Your task to perform on an android device: delete location history Image 0: 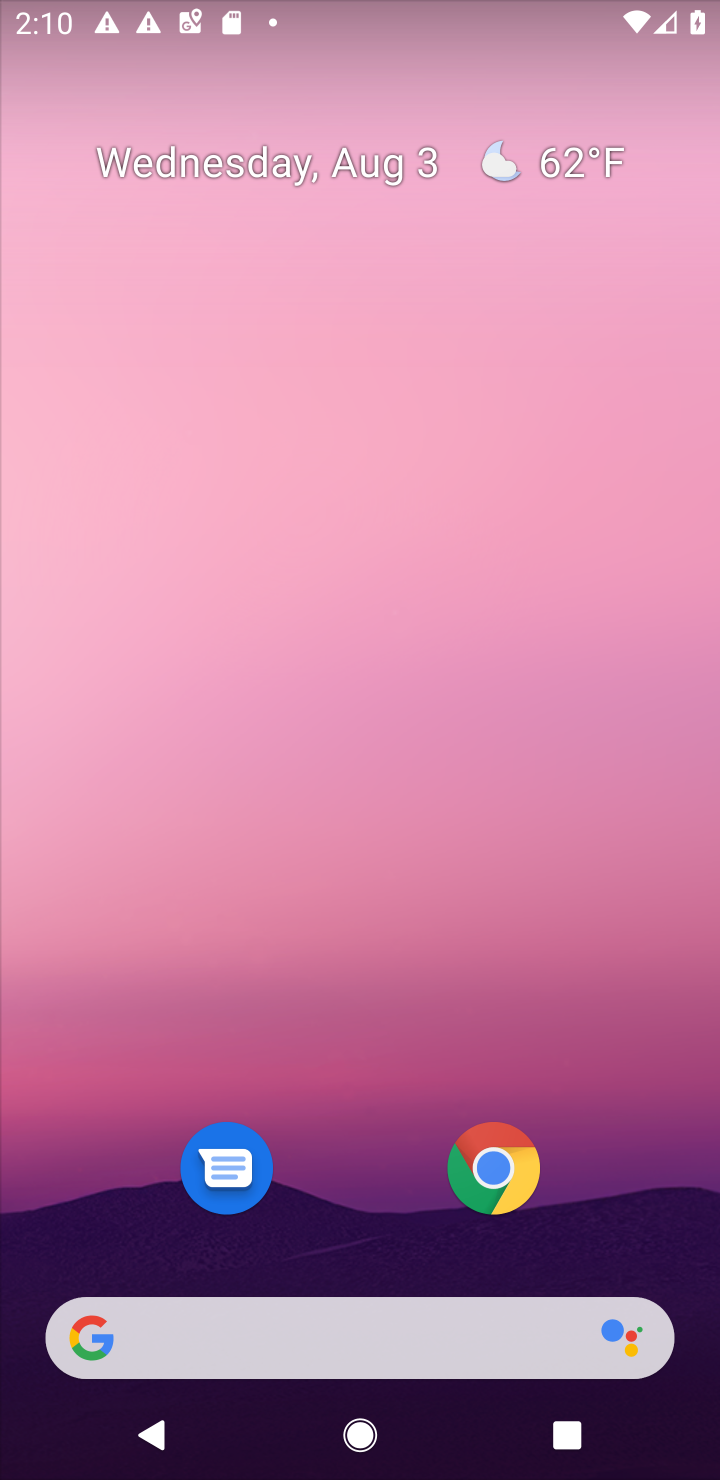
Step 0: drag from (636, 1059) to (601, 320)
Your task to perform on an android device: delete location history Image 1: 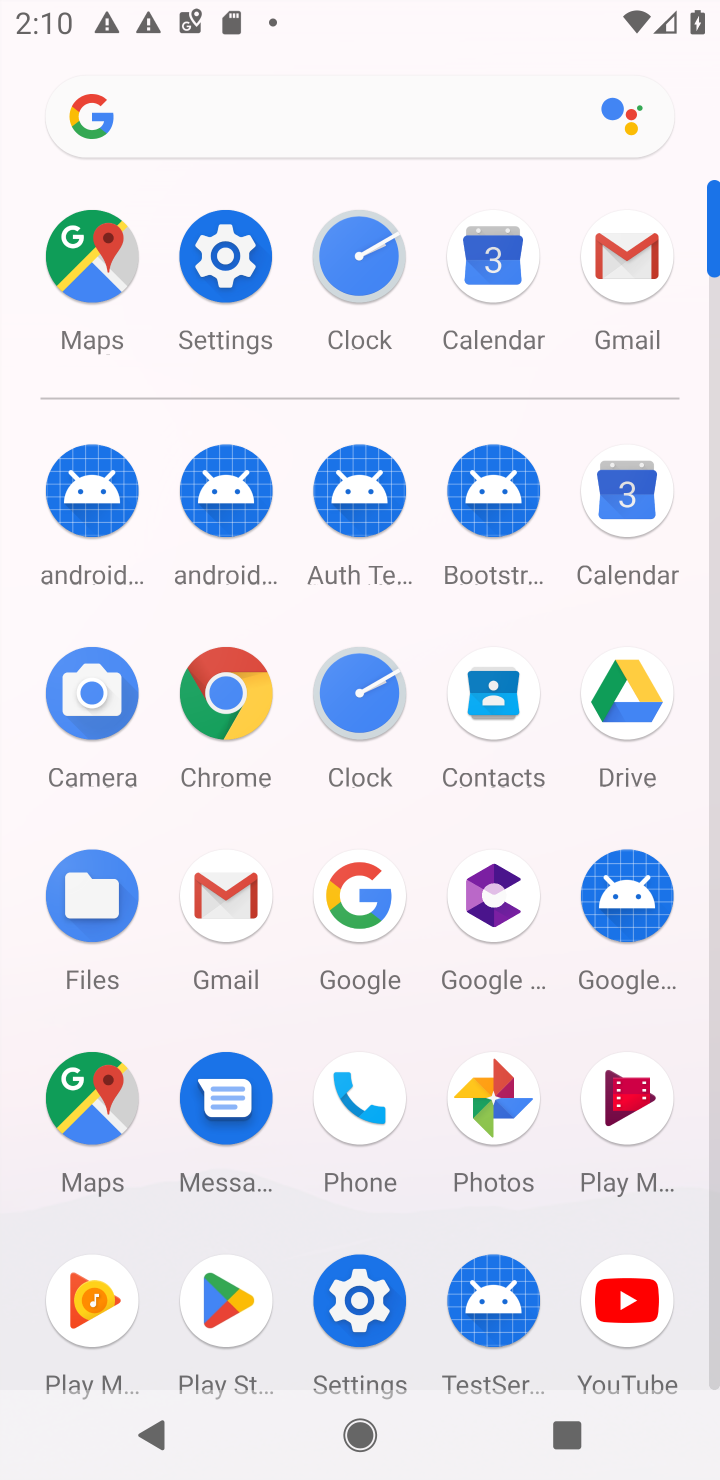
Step 1: click (94, 1101)
Your task to perform on an android device: delete location history Image 2: 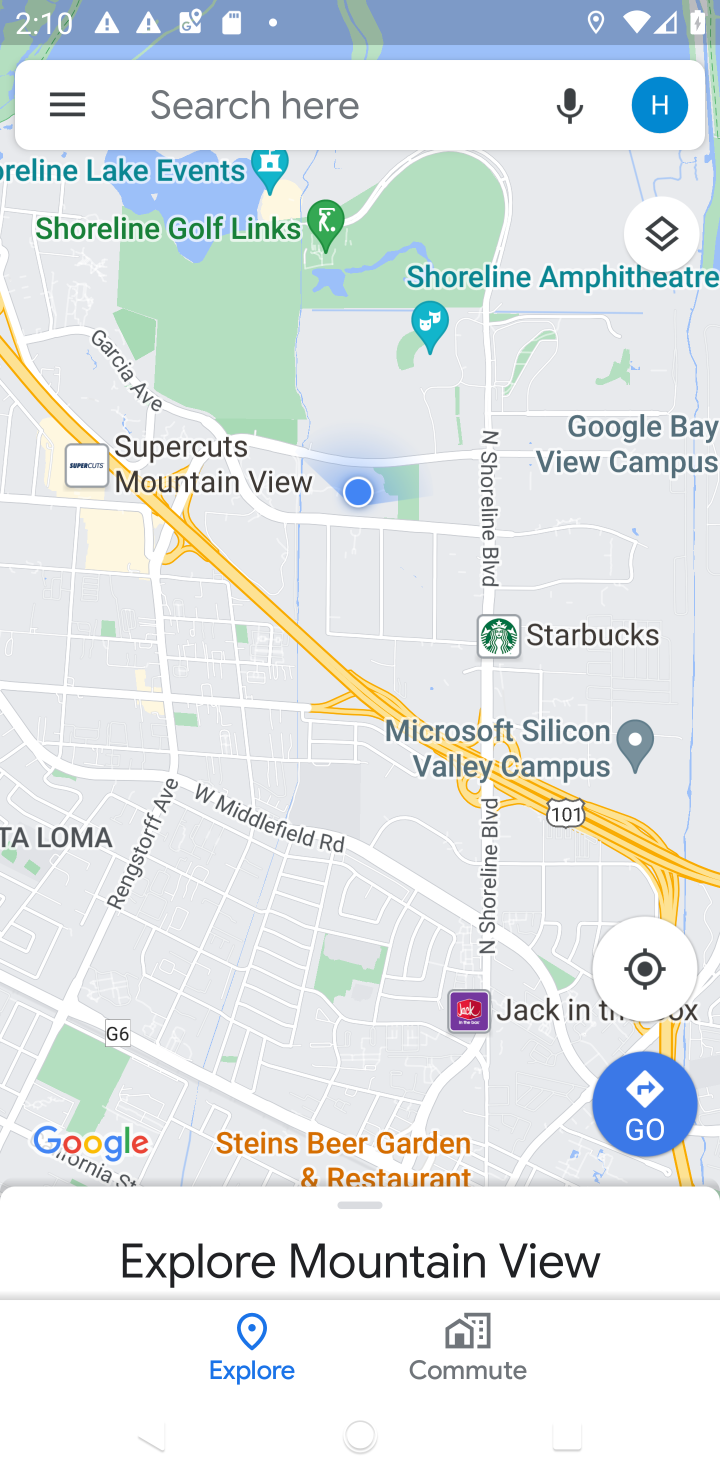
Step 2: click (68, 106)
Your task to perform on an android device: delete location history Image 3: 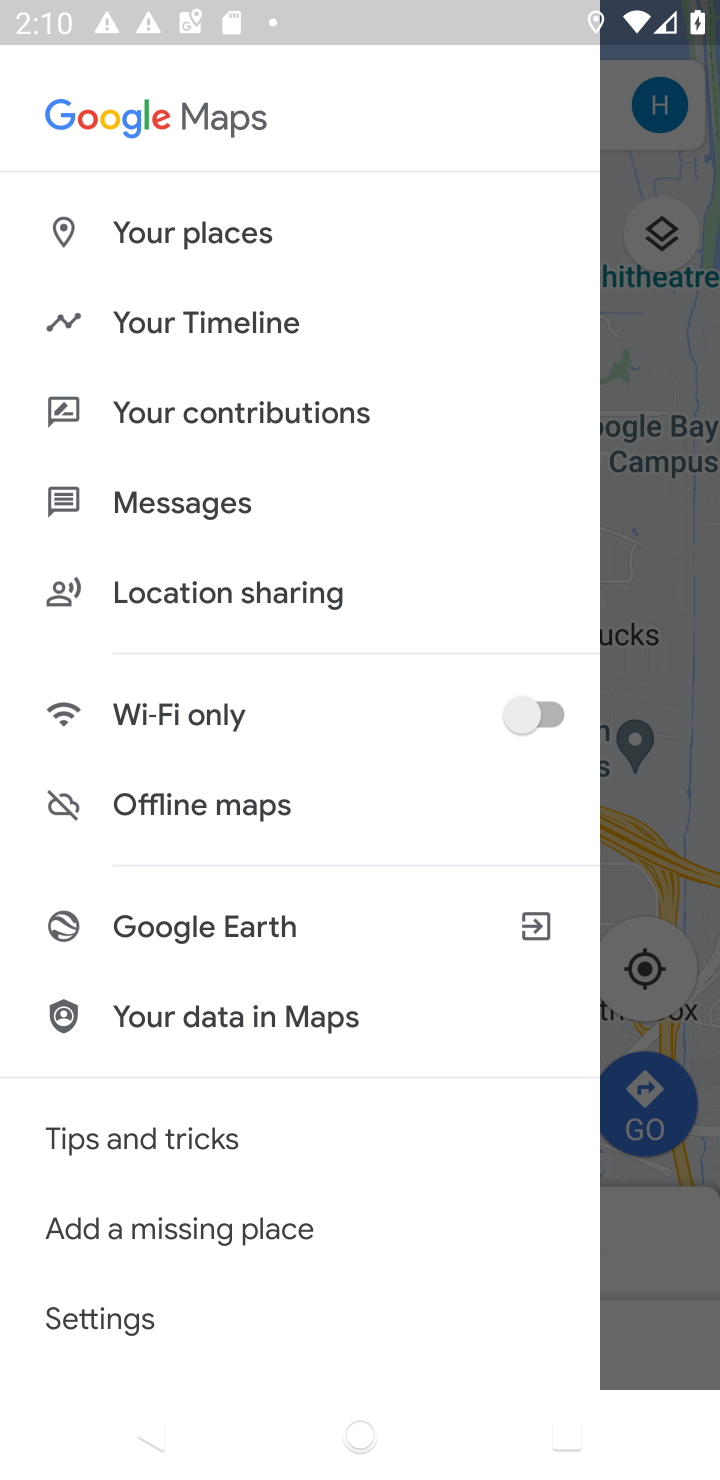
Step 3: click (107, 1309)
Your task to perform on an android device: delete location history Image 4: 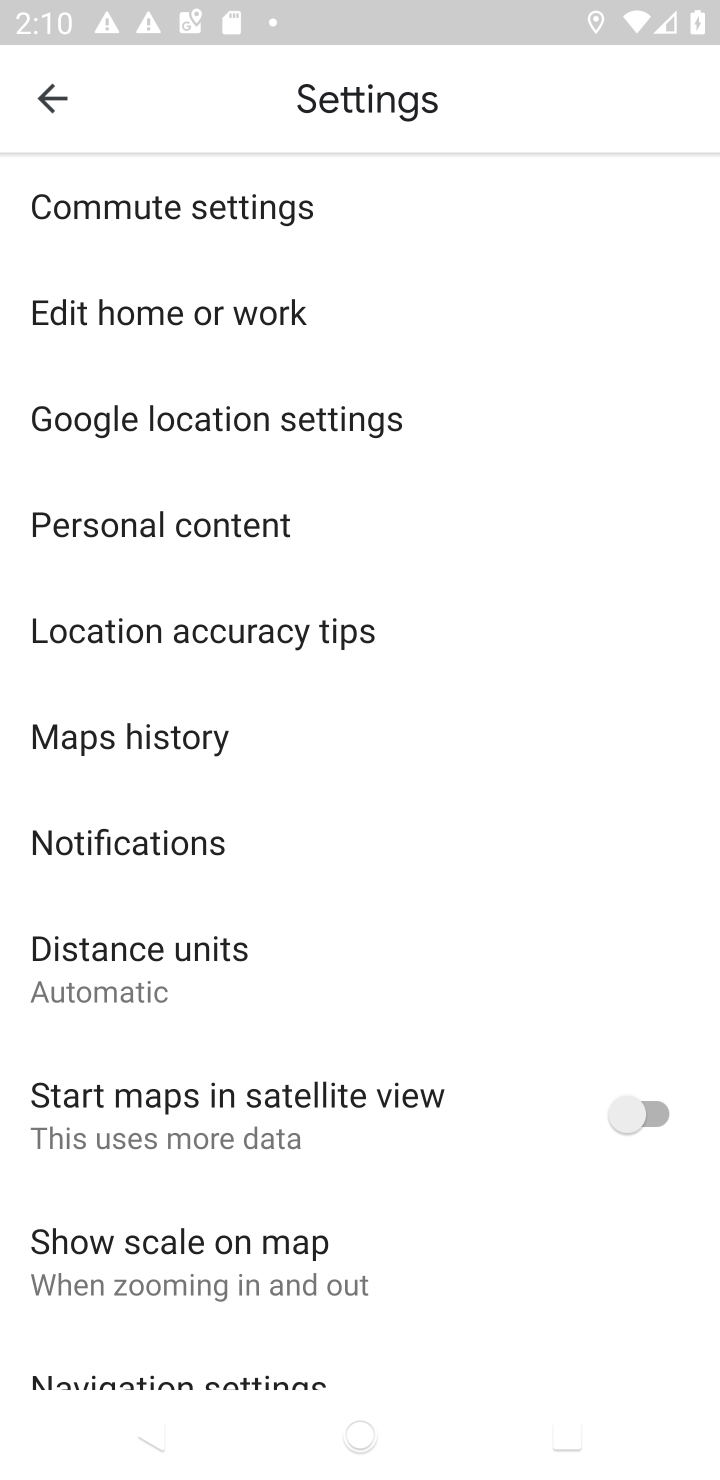
Step 4: click (155, 531)
Your task to perform on an android device: delete location history Image 5: 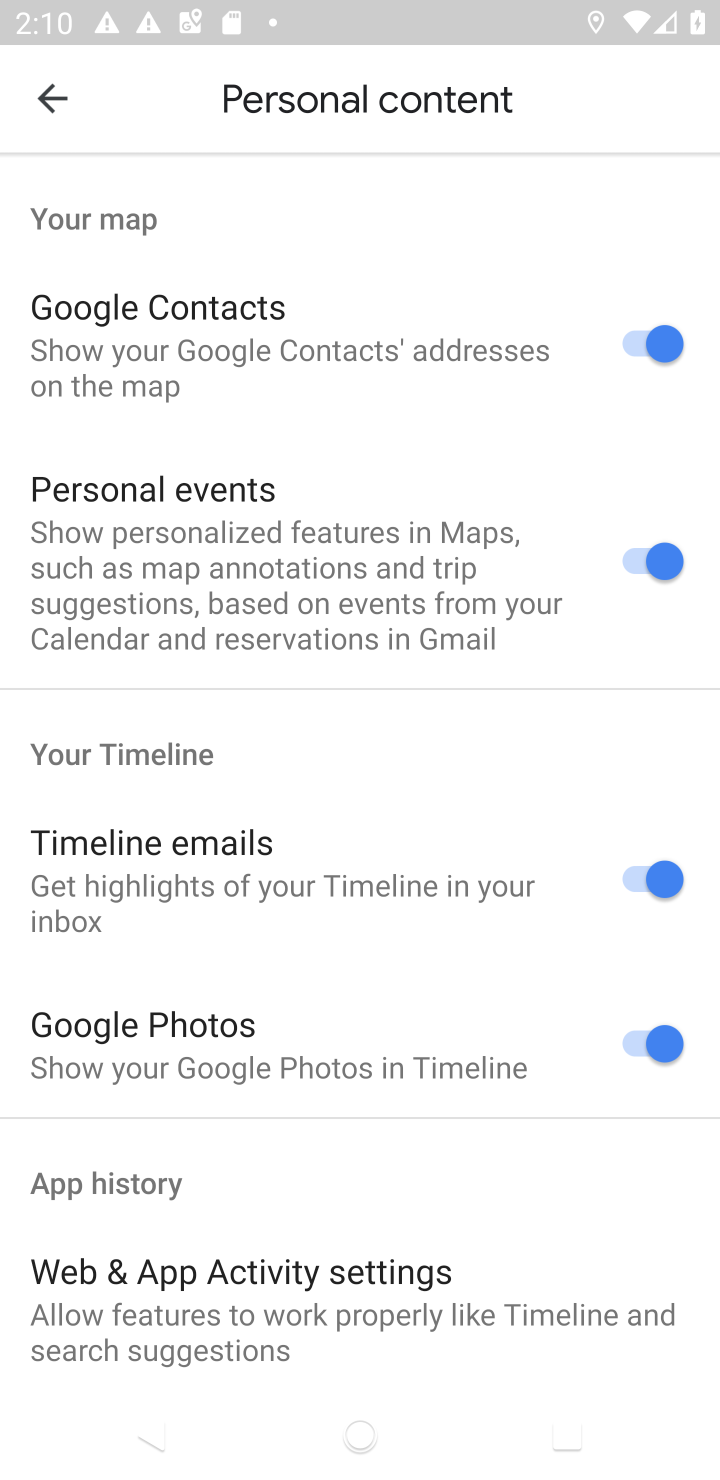
Step 5: drag from (536, 1257) to (520, 251)
Your task to perform on an android device: delete location history Image 6: 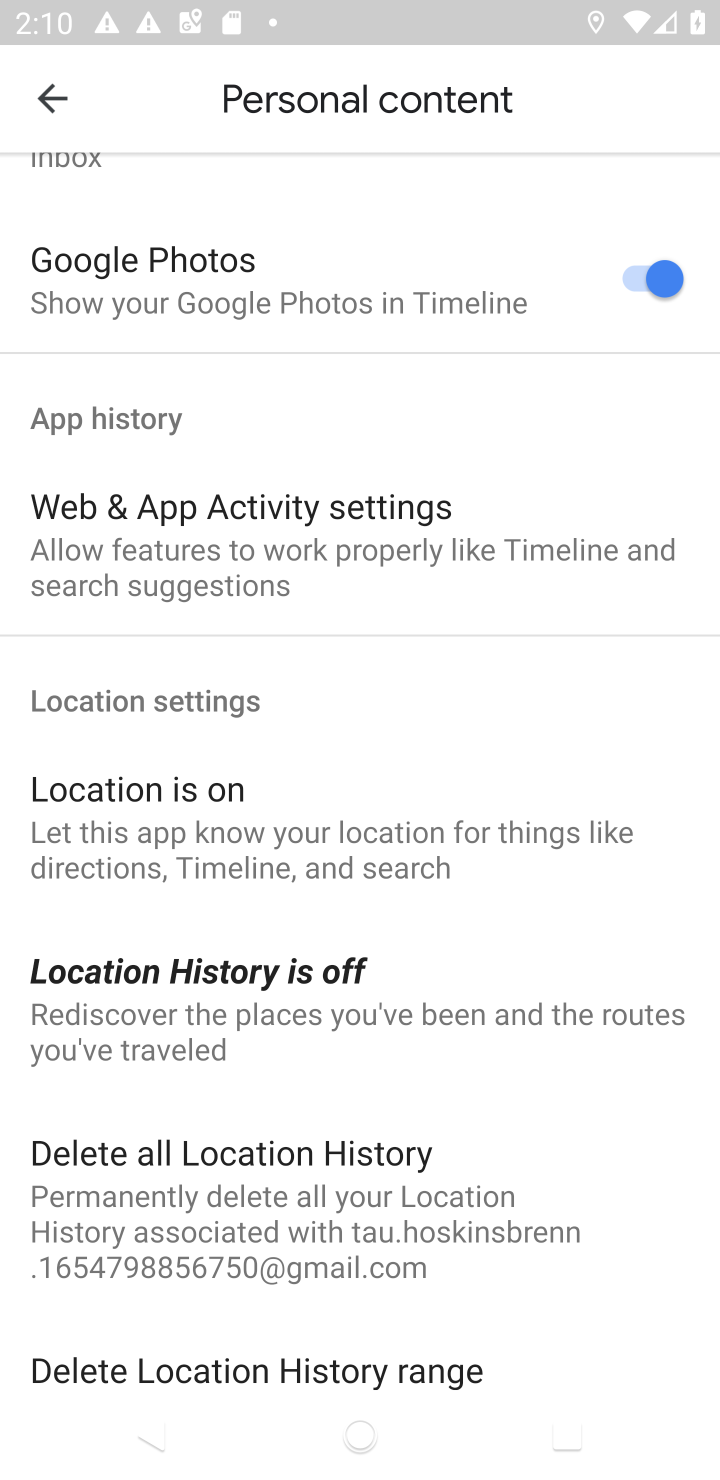
Step 6: click (111, 1175)
Your task to perform on an android device: delete location history Image 7: 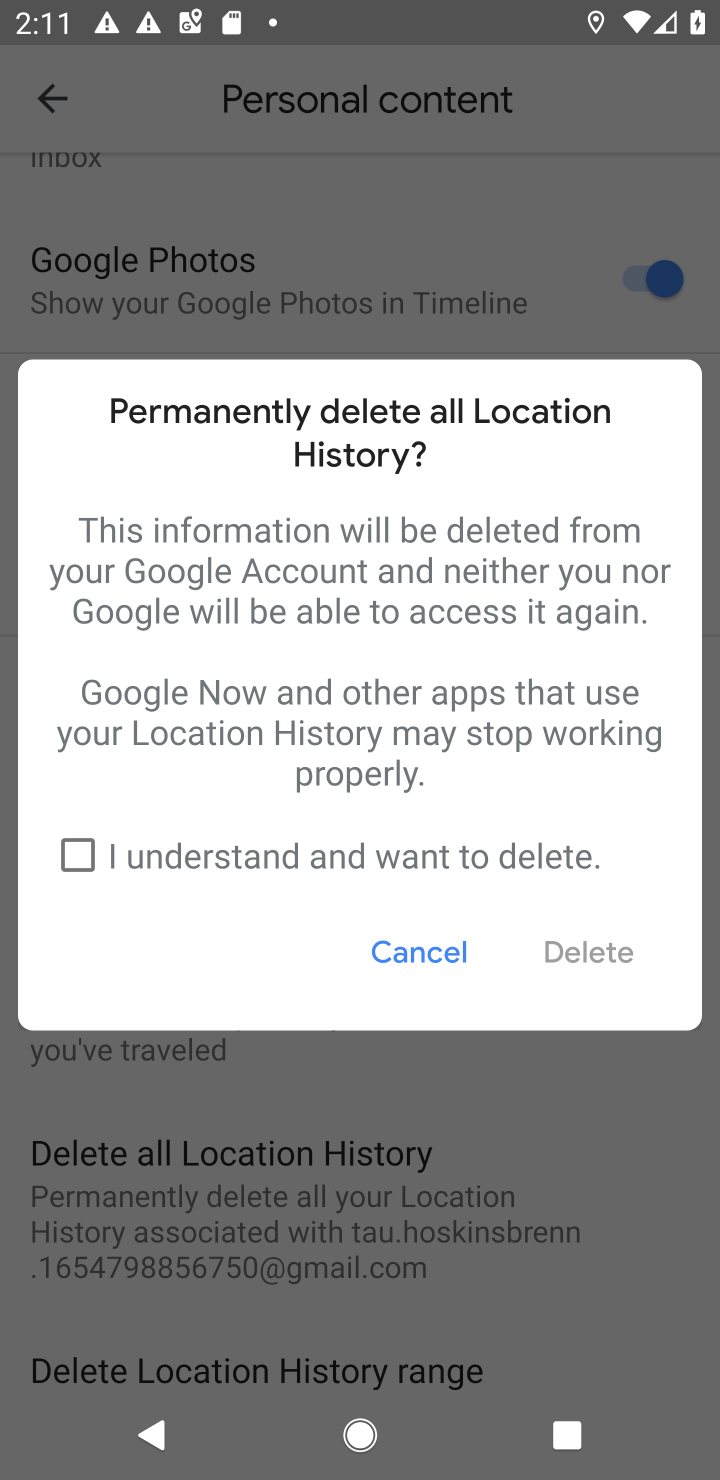
Step 7: click (75, 849)
Your task to perform on an android device: delete location history Image 8: 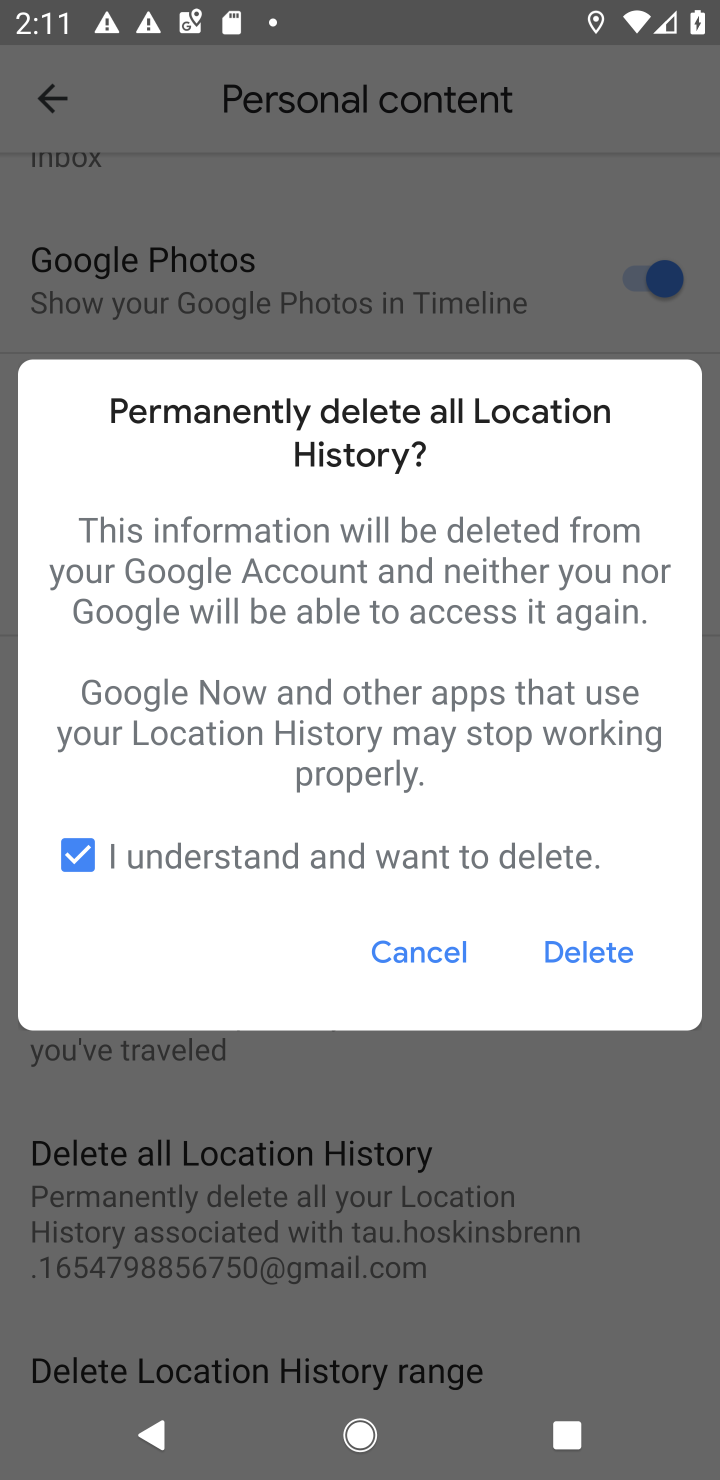
Step 8: click (579, 941)
Your task to perform on an android device: delete location history Image 9: 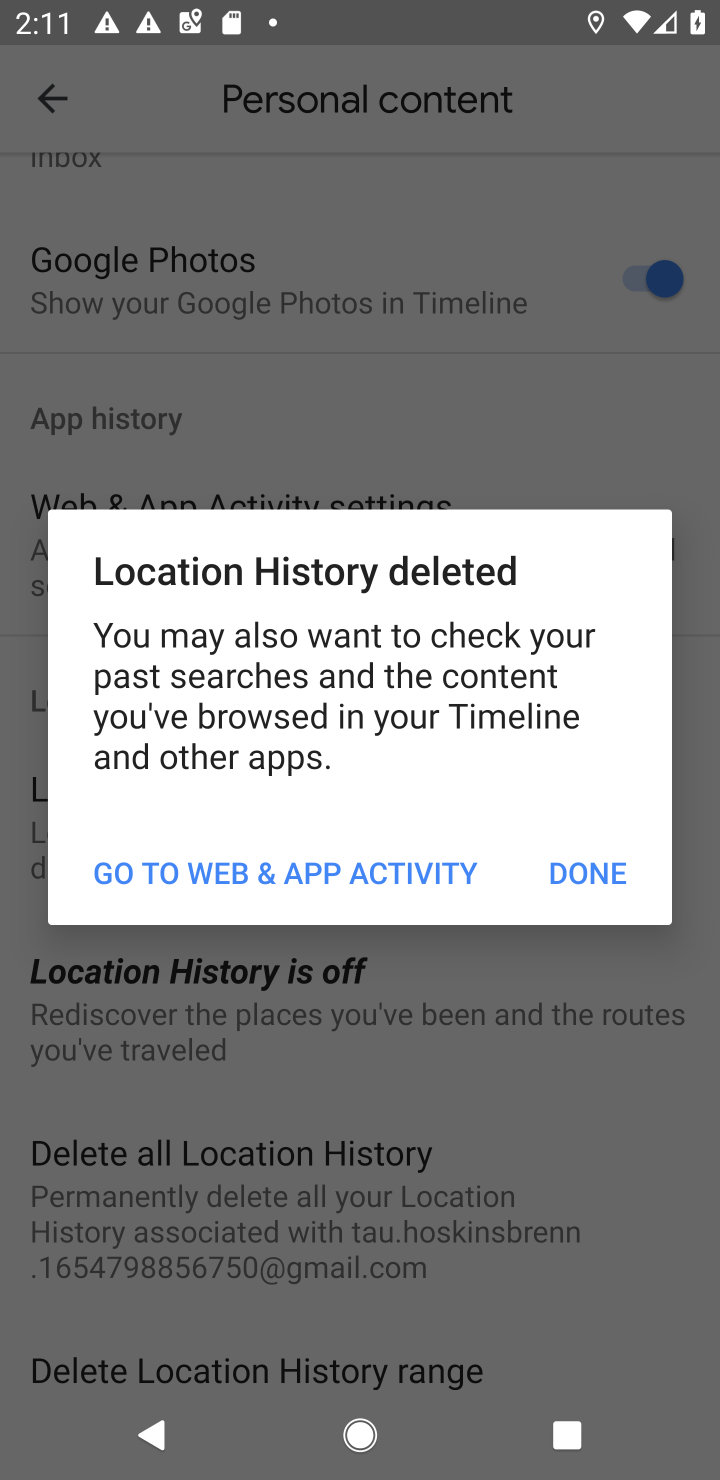
Step 9: click (584, 879)
Your task to perform on an android device: delete location history Image 10: 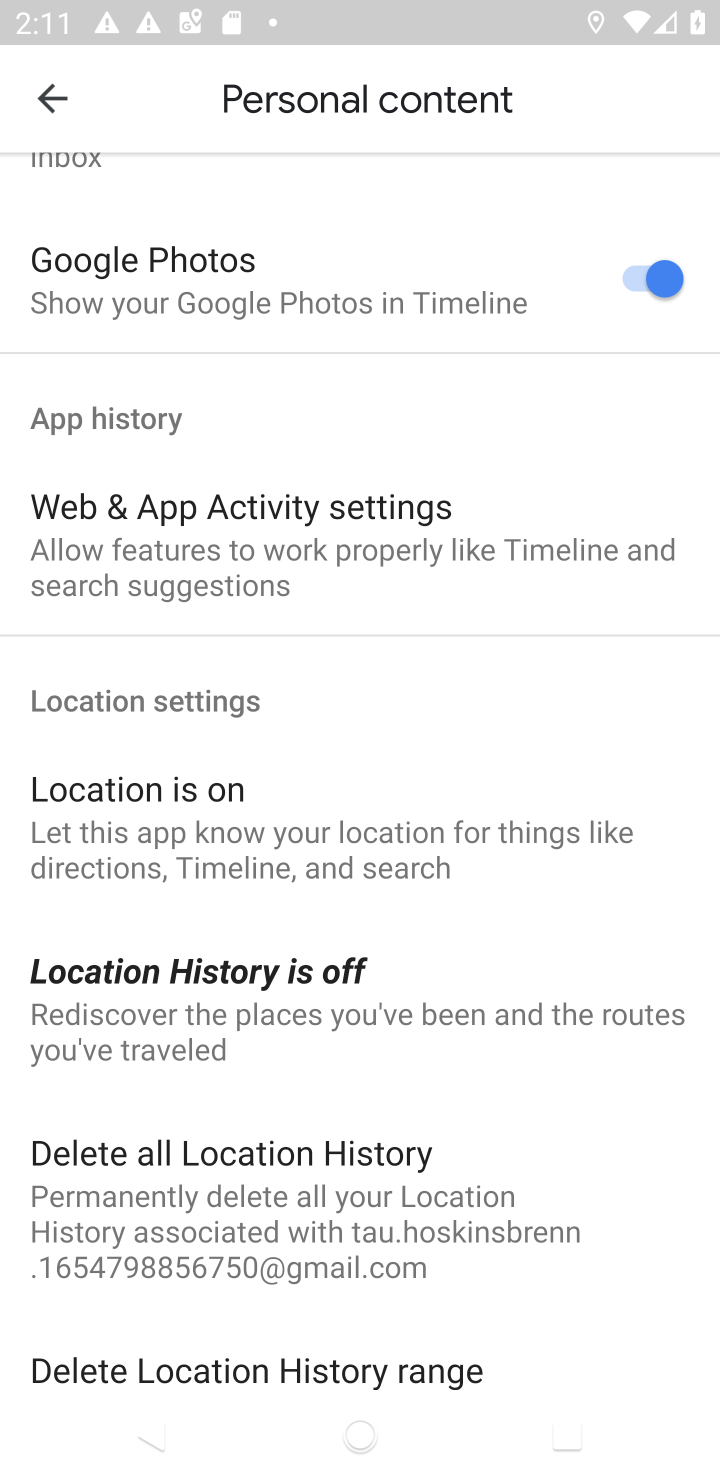
Step 10: task complete